Your task to perform on an android device: Go to location settings Image 0: 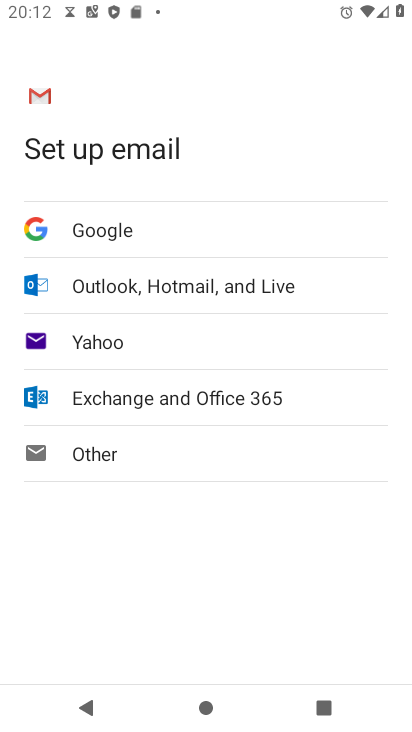
Step 0: press home button
Your task to perform on an android device: Go to location settings Image 1: 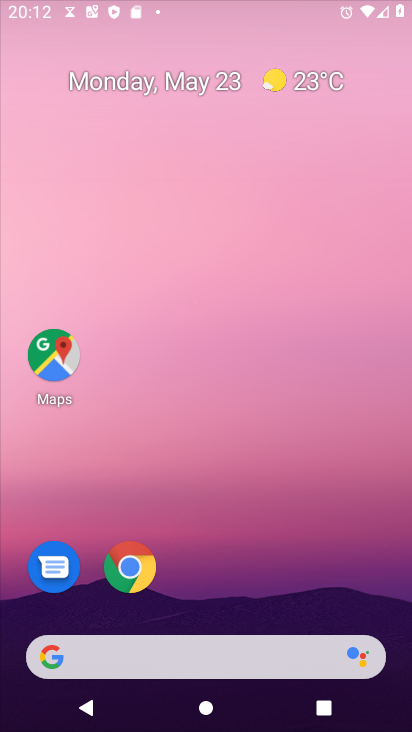
Step 1: drag from (252, 582) to (263, 337)
Your task to perform on an android device: Go to location settings Image 2: 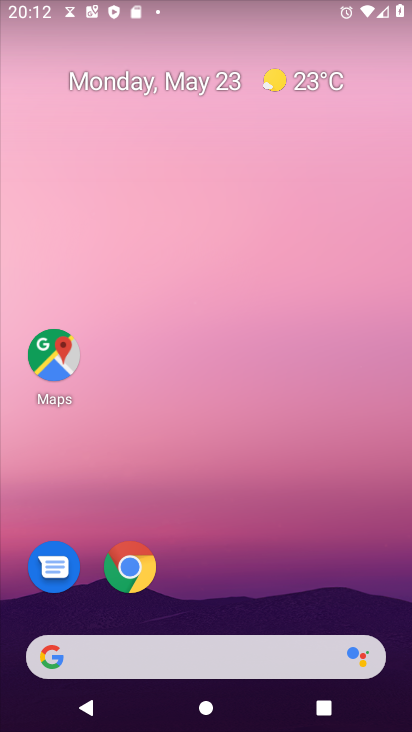
Step 2: drag from (227, 552) to (239, 227)
Your task to perform on an android device: Go to location settings Image 3: 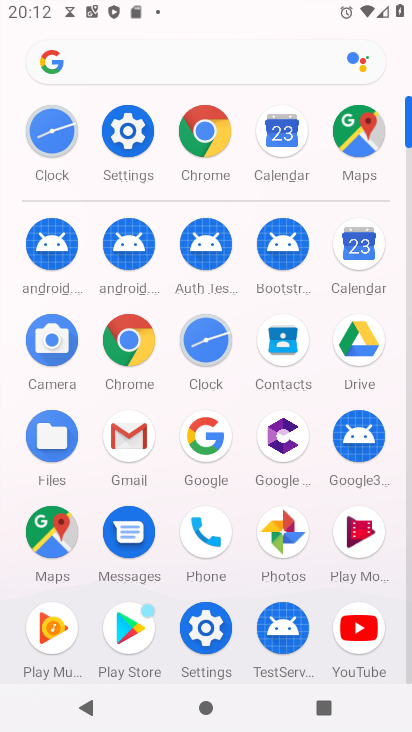
Step 3: click (132, 134)
Your task to perform on an android device: Go to location settings Image 4: 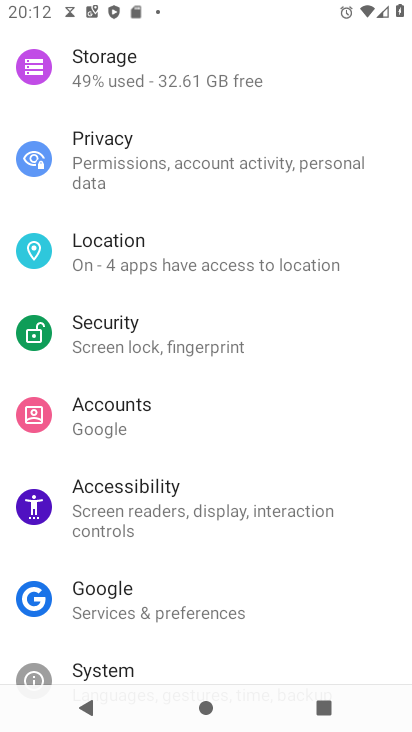
Step 4: click (158, 239)
Your task to perform on an android device: Go to location settings Image 5: 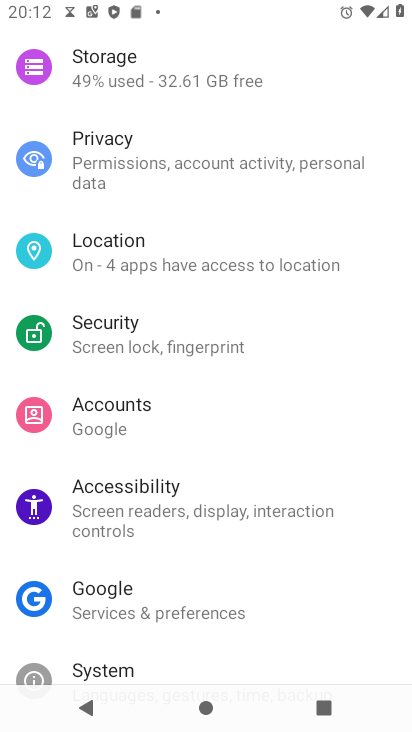
Step 5: click (145, 263)
Your task to perform on an android device: Go to location settings Image 6: 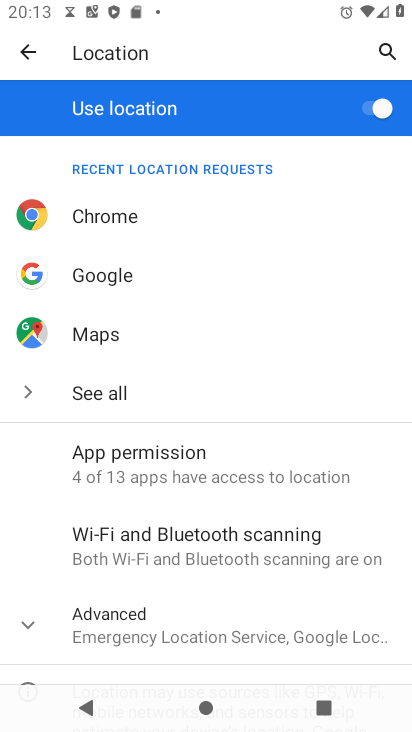
Step 6: task complete